Your task to perform on an android device: toggle location history Image 0: 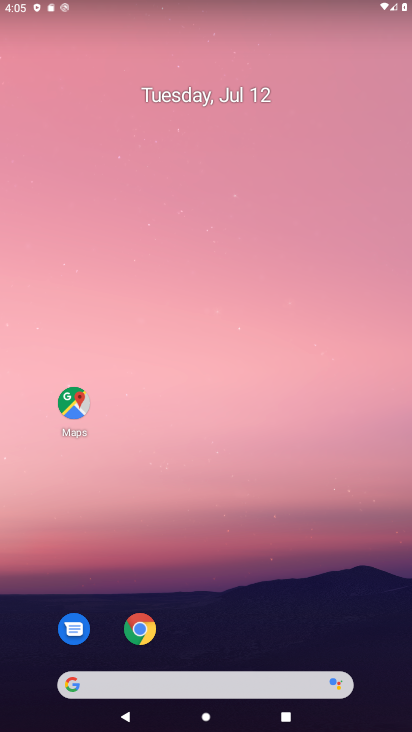
Step 0: drag from (251, 649) to (197, 5)
Your task to perform on an android device: toggle location history Image 1: 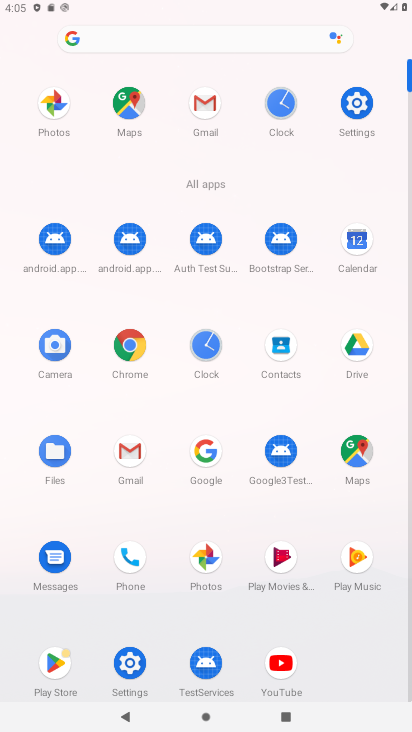
Step 1: click (351, 108)
Your task to perform on an android device: toggle location history Image 2: 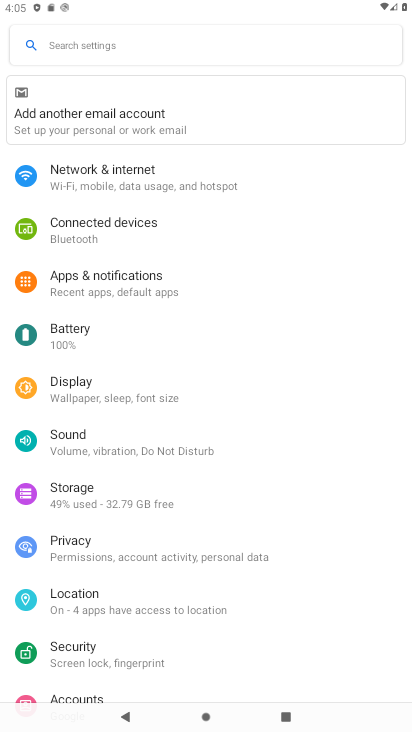
Step 2: click (69, 594)
Your task to perform on an android device: toggle location history Image 3: 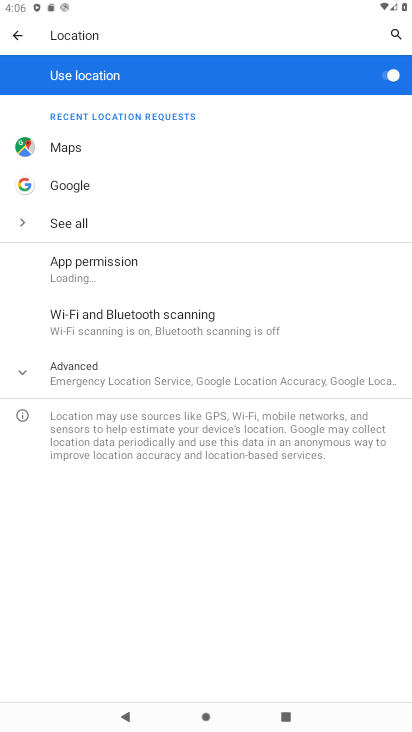
Step 3: click (102, 381)
Your task to perform on an android device: toggle location history Image 4: 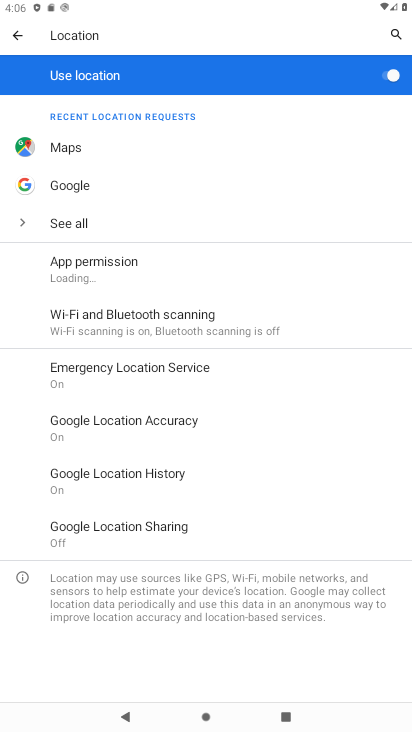
Step 4: click (104, 472)
Your task to perform on an android device: toggle location history Image 5: 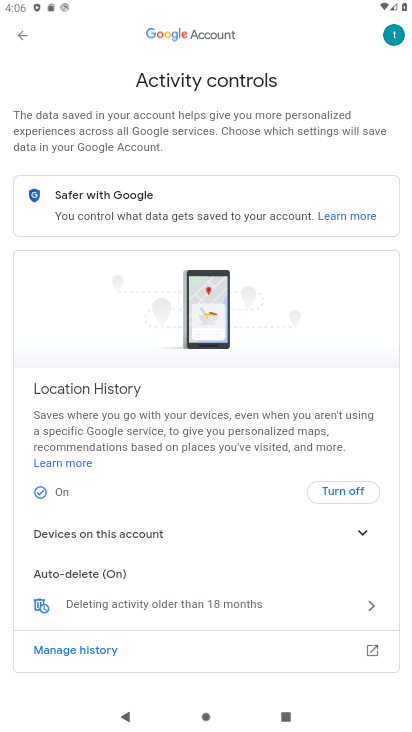
Step 5: click (342, 489)
Your task to perform on an android device: toggle location history Image 6: 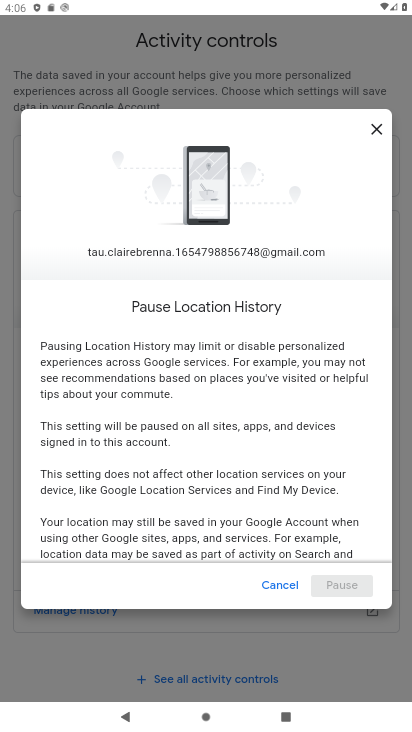
Step 6: drag from (377, 546) to (346, 49)
Your task to perform on an android device: toggle location history Image 7: 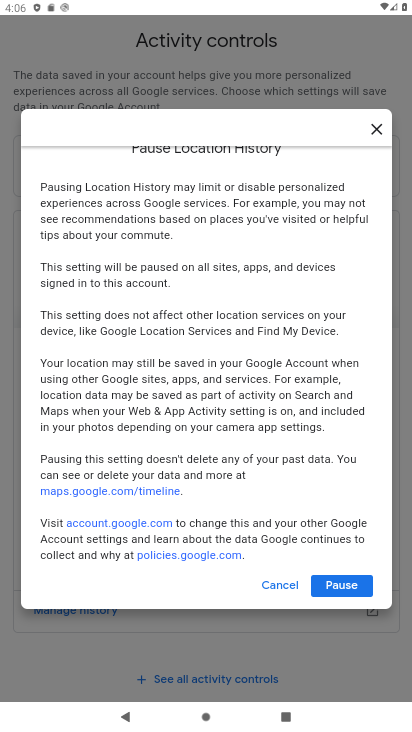
Step 7: click (338, 585)
Your task to perform on an android device: toggle location history Image 8: 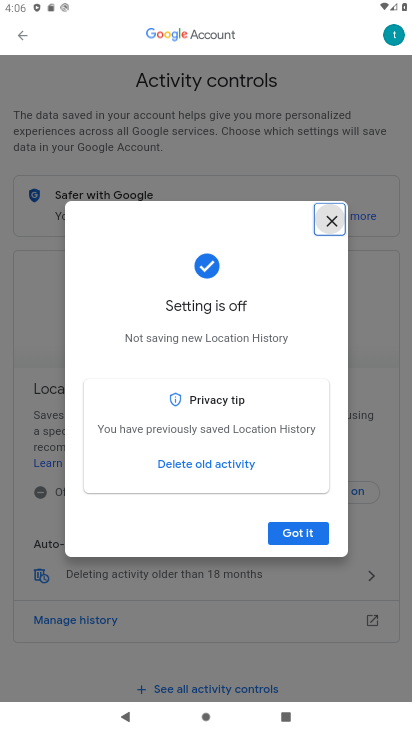
Step 8: click (279, 538)
Your task to perform on an android device: toggle location history Image 9: 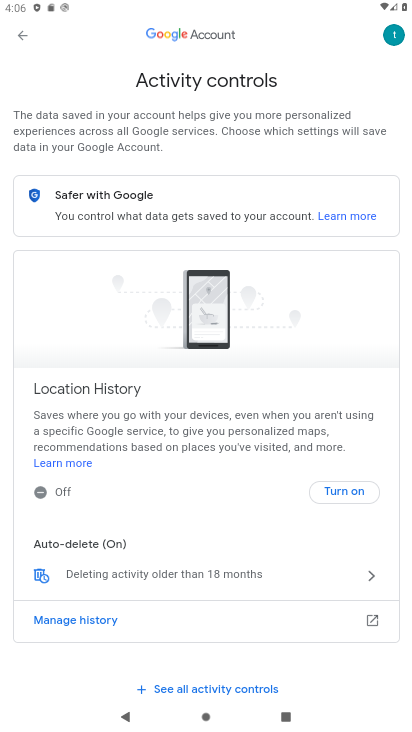
Step 9: task complete